Your task to perform on an android device: turn on sleep mode Image 0: 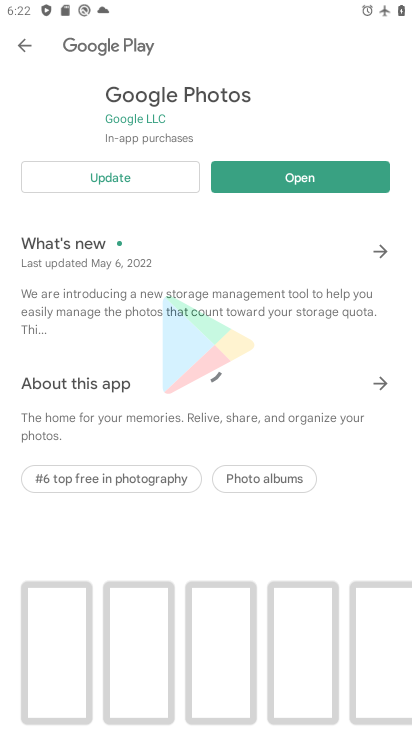
Step 0: drag from (265, 608) to (214, 185)
Your task to perform on an android device: turn on sleep mode Image 1: 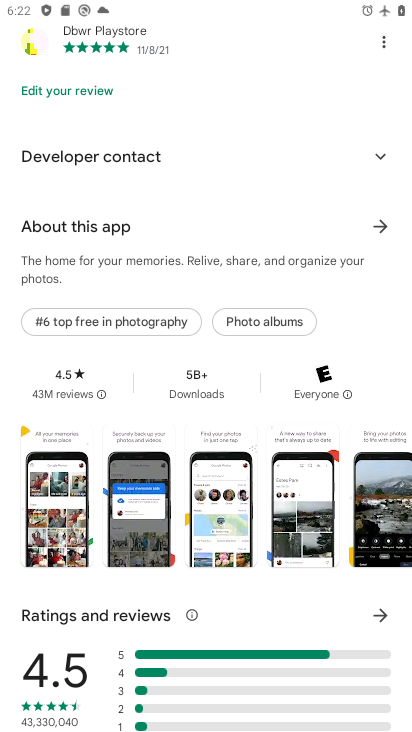
Step 1: task complete